Your task to perform on an android device: remove spam from my inbox in the gmail app Image 0: 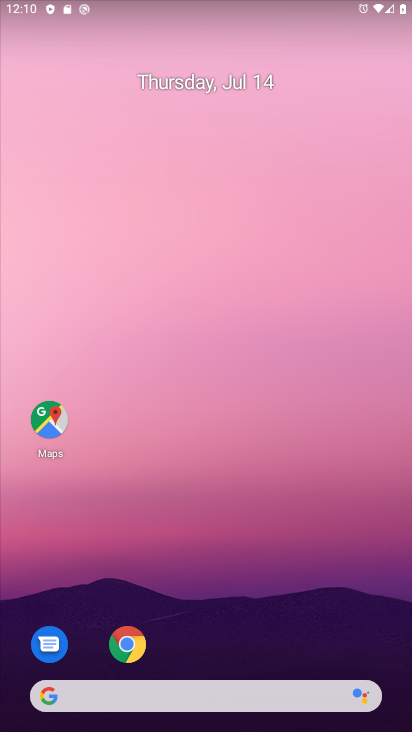
Step 0: drag from (207, 666) to (193, 369)
Your task to perform on an android device: remove spam from my inbox in the gmail app Image 1: 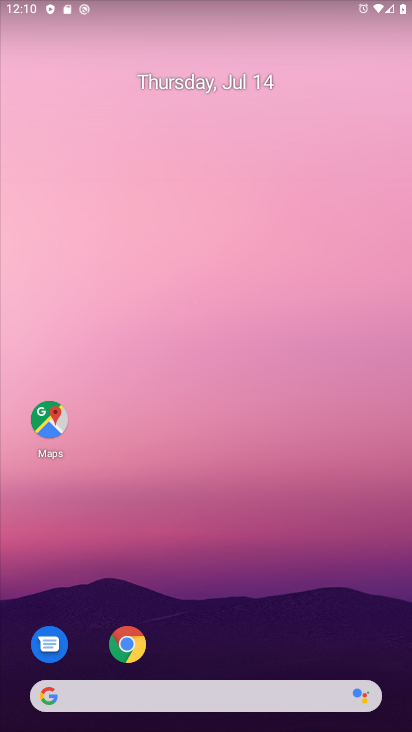
Step 1: drag from (211, 653) to (182, 207)
Your task to perform on an android device: remove spam from my inbox in the gmail app Image 2: 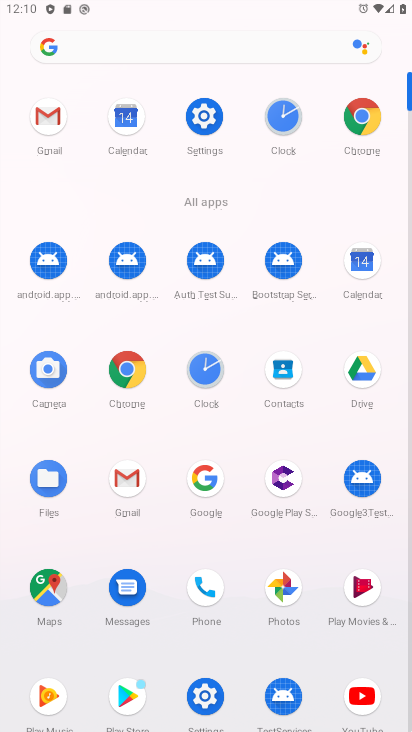
Step 2: click (123, 468)
Your task to perform on an android device: remove spam from my inbox in the gmail app Image 3: 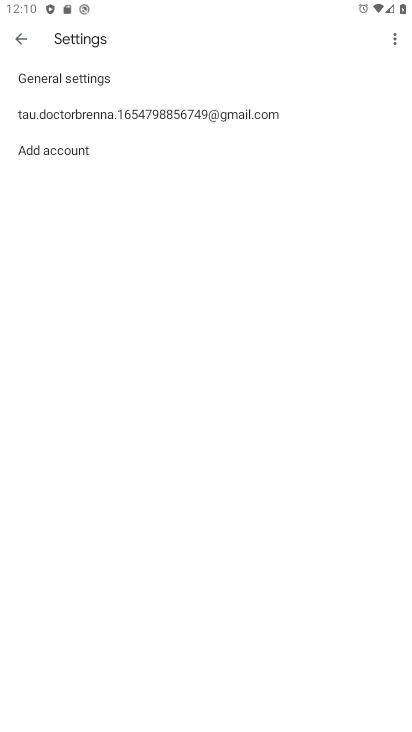
Step 3: click (13, 36)
Your task to perform on an android device: remove spam from my inbox in the gmail app Image 4: 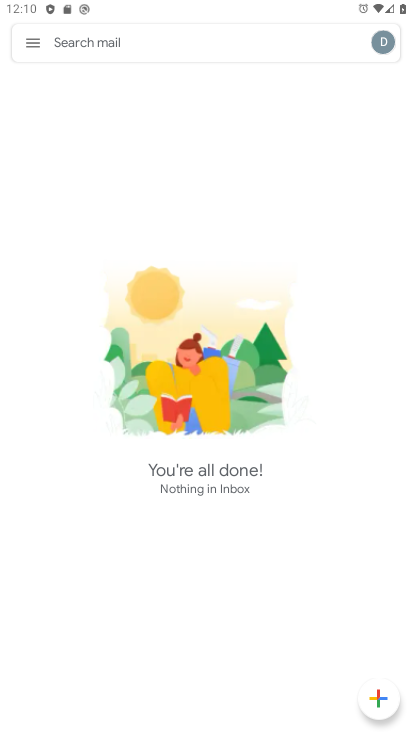
Step 4: click (20, 42)
Your task to perform on an android device: remove spam from my inbox in the gmail app Image 5: 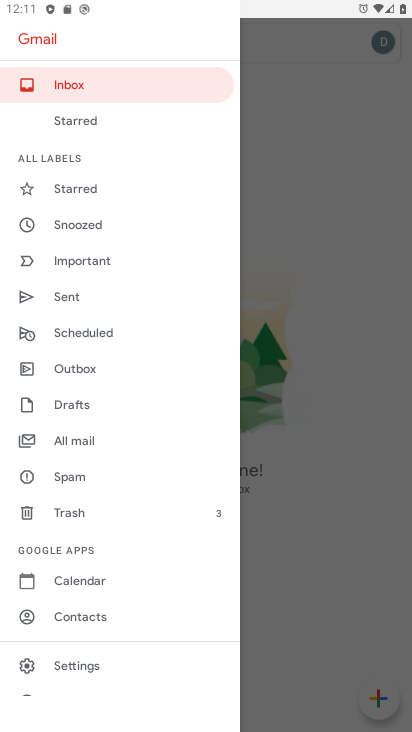
Step 5: click (54, 475)
Your task to perform on an android device: remove spam from my inbox in the gmail app Image 6: 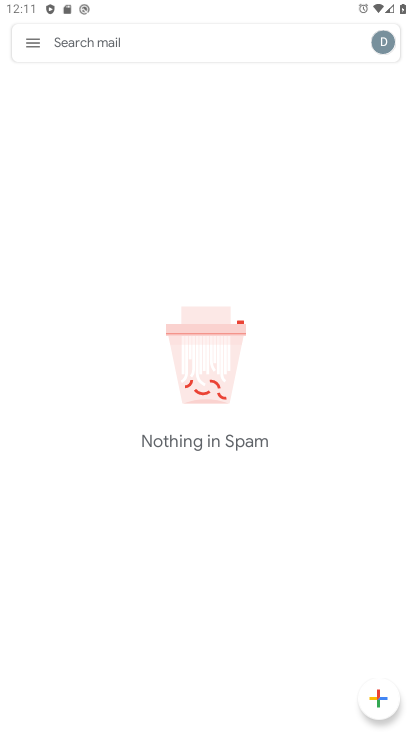
Step 6: task complete